Your task to perform on an android device: add a contact in the contacts app Image 0: 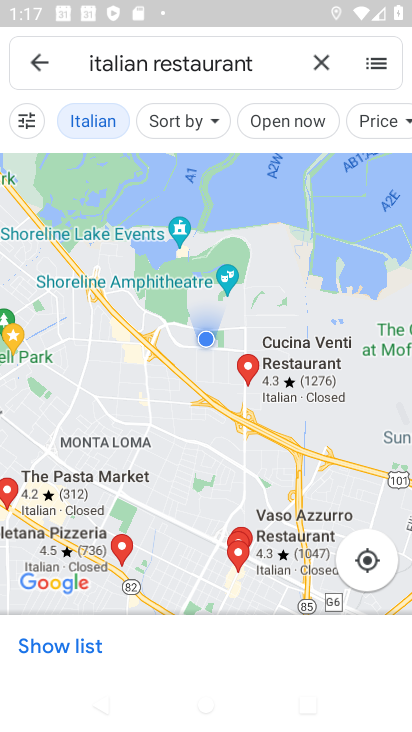
Step 0: drag from (218, 510) to (407, 103)
Your task to perform on an android device: add a contact in the contacts app Image 1: 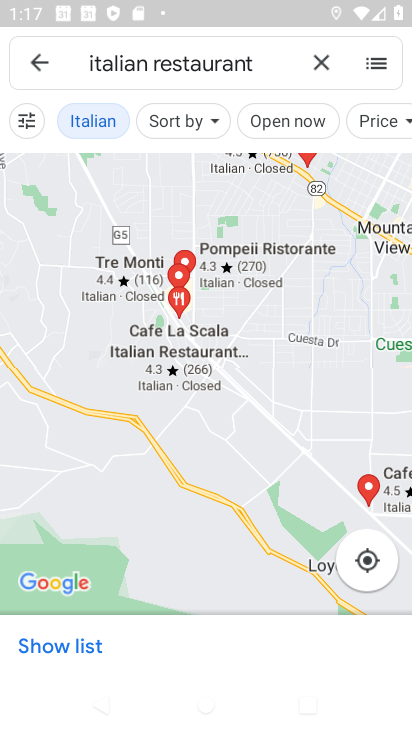
Step 1: press home button
Your task to perform on an android device: add a contact in the contacts app Image 2: 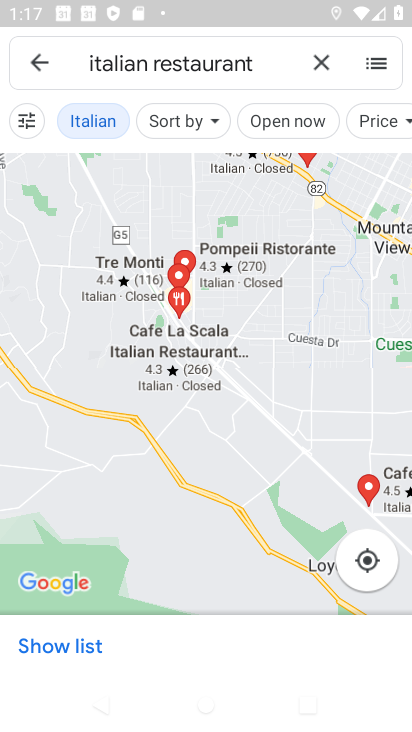
Step 2: click (395, 215)
Your task to perform on an android device: add a contact in the contacts app Image 3: 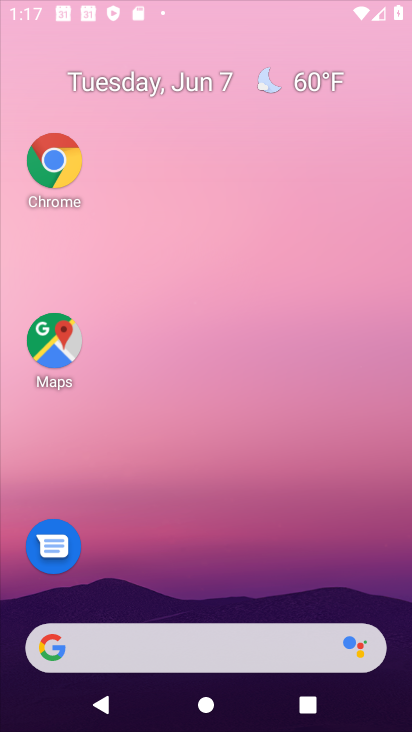
Step 3: drag from (223, 492) to (282, 150)
Your task to perform on an android device: add a contact in the contacts app Image 4: 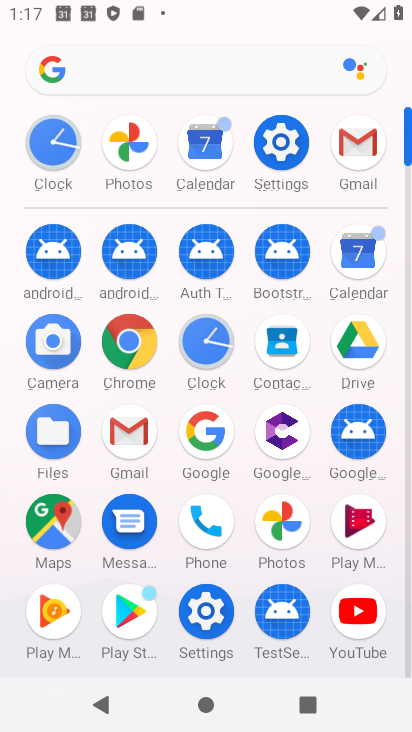
Step 4: click (271, 341)
Your task to perform on an android device: add a contact in the contacts app Image 5: 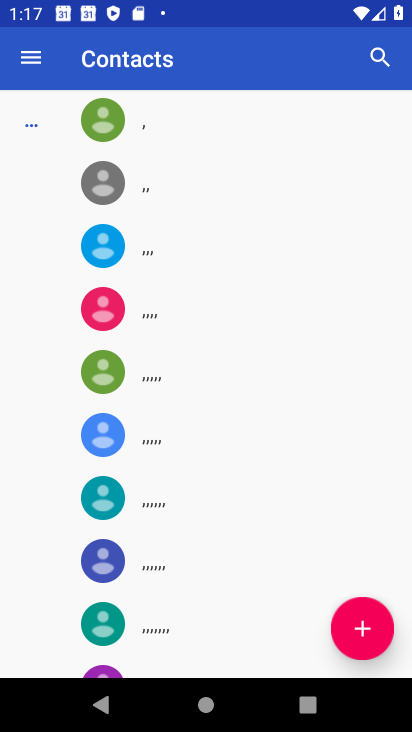
Step 5: drag from (209, 593) to (246, 329)
Your task to perform on an android device: add a contact in the contacts app Image 6: 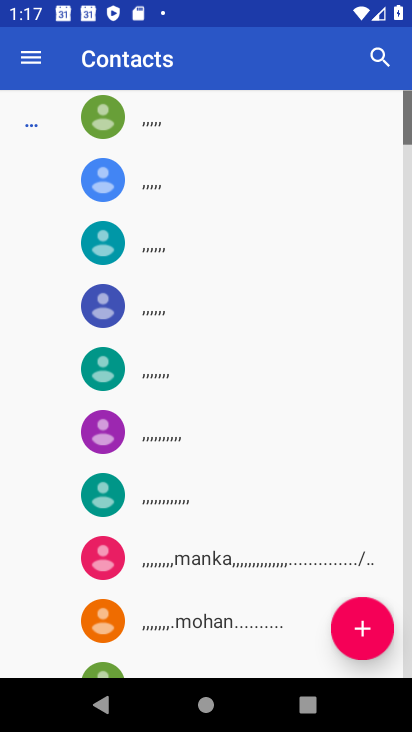
Step 6: click (361, 643)
Your task to perform on an android device: add a contact in the contacts app Image 7: 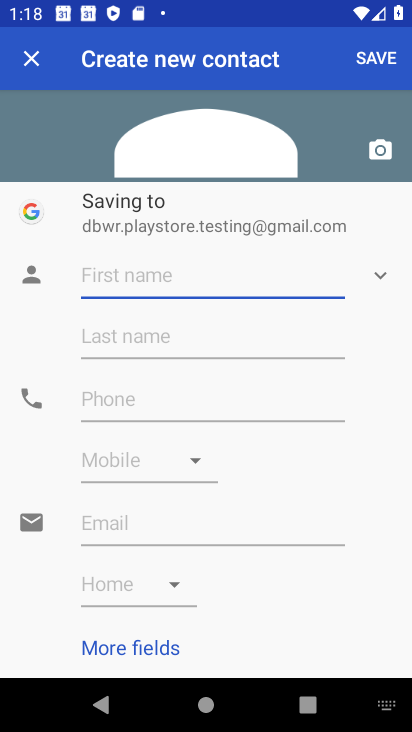
Step 7: type "Additional"
Your task to perform on an android device: add a contact in the contacts app Image 8: 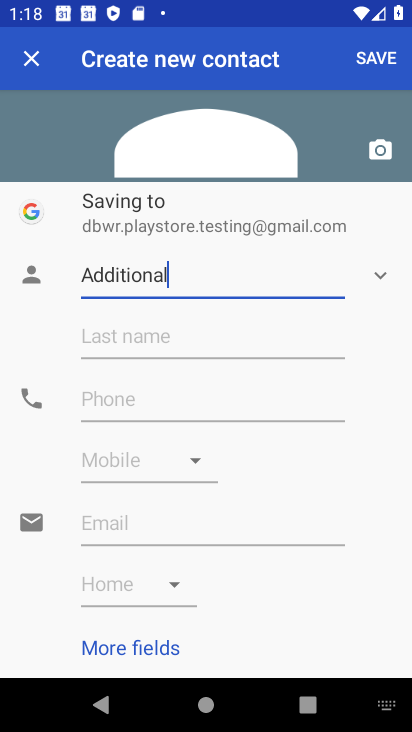
Step 8: type ""
Your task to perform on an android device: add a contact in the contacts app Image 9: 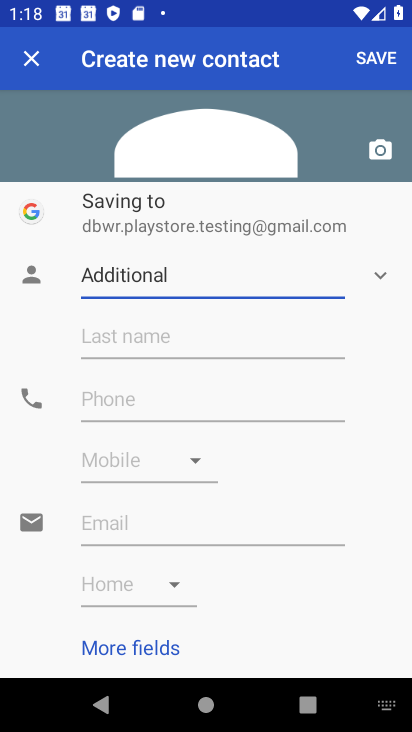
Step 9: click (382, 51)
Your task to perform on an android device: add a contact in the contacts app Image 10: 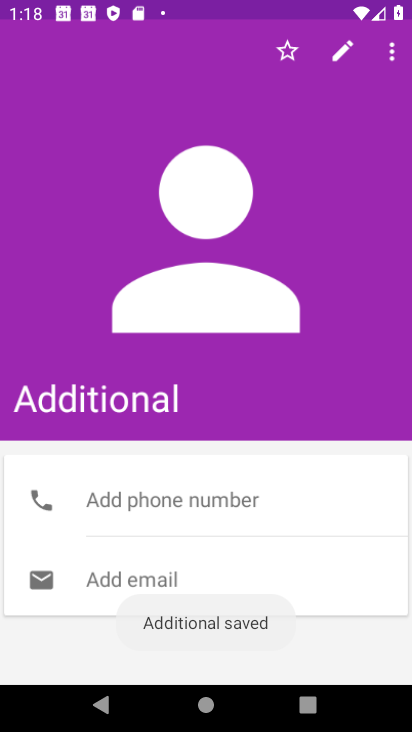
Step 10: task complete